Your task to perform on an android device: change timer sound Image 0: 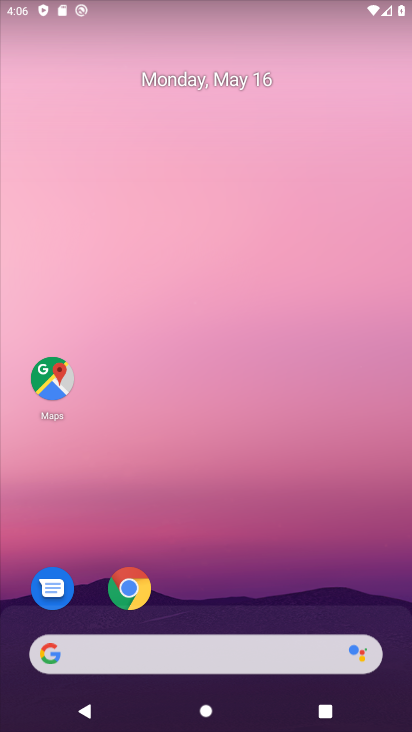
Step 0: drag from (227, 626) to (373, 73)
Your task to perform on an android device: change timer sound Image 1: 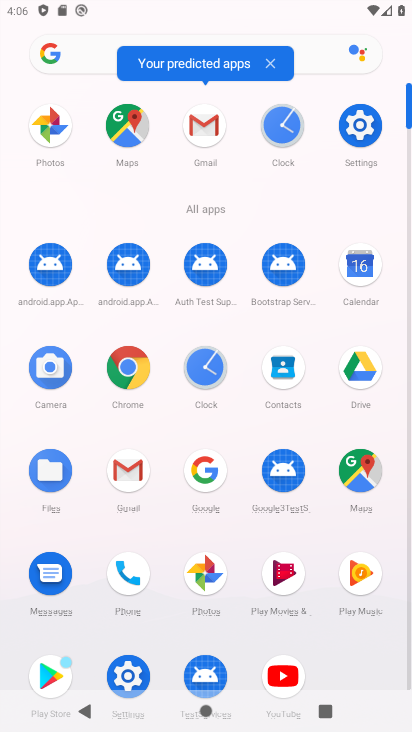
Step 1: click (213, 362)
Your task to perform on an android device: change timer sound Image 2: 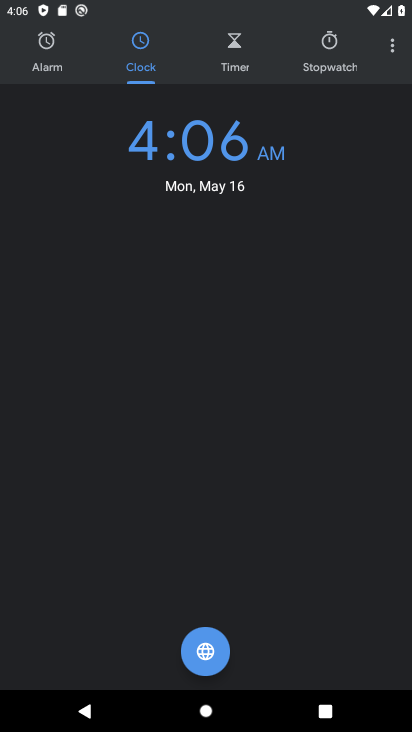
Step 2: click (387, 52)
Your task to perform on an android device: change timer sound Image 3: 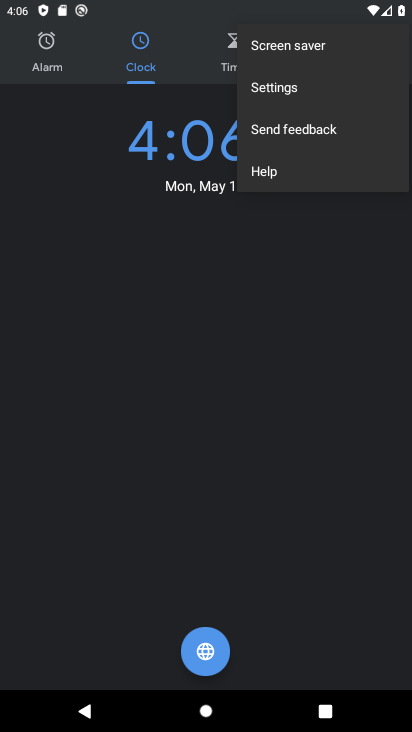
Step 3: click (319, 94)
Your task to perform on an android device: change timer sound Image 4: 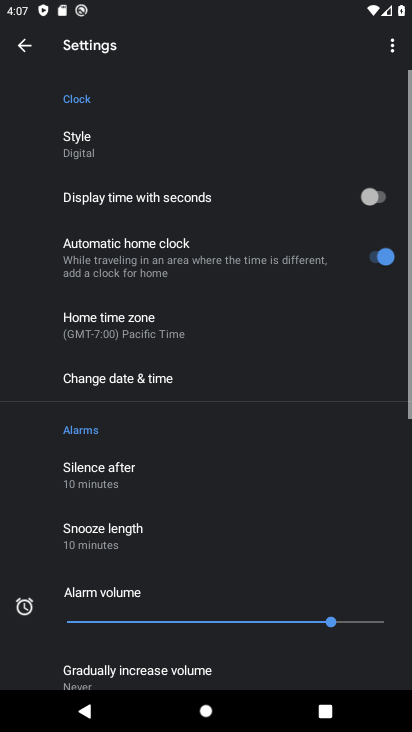
Step 4: drag from (169, 548) to (306, 141)
Your task to perform on an android device: change timer sound Image 5: 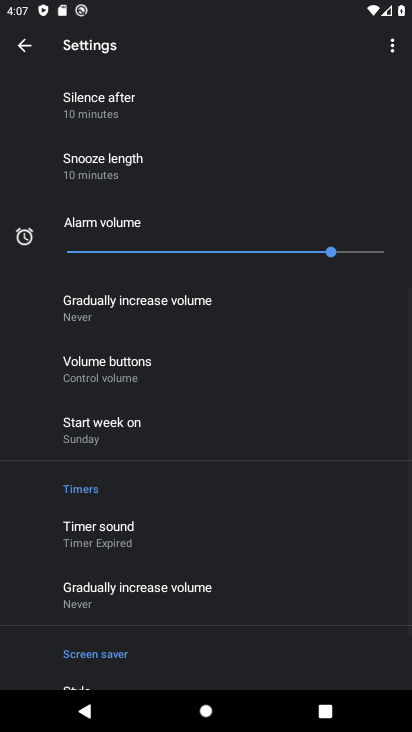
Step 5: click (167, 535)
Your task to perform on an android device: change timer sound Image 6: 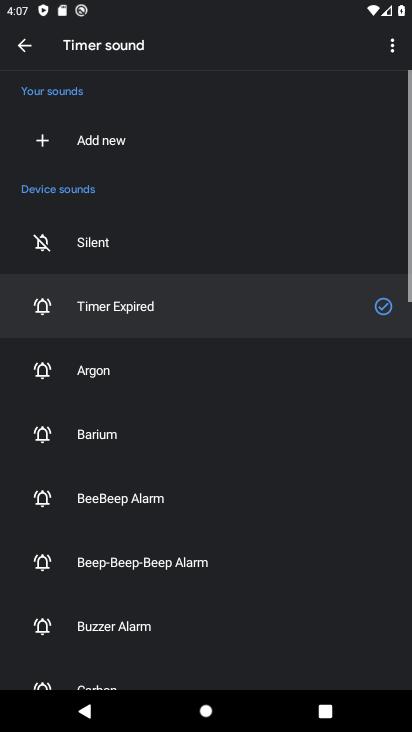
Step 6: drag from (214, 619) to (342, 333)
Your task to perform on an android device: change timer sound Image 7: 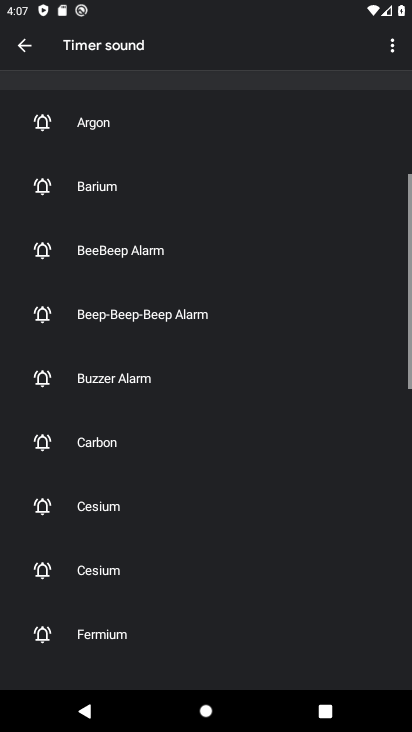
Step 7: click (177, 587)
Your task to perform on an android device: change timer sound Image 8: 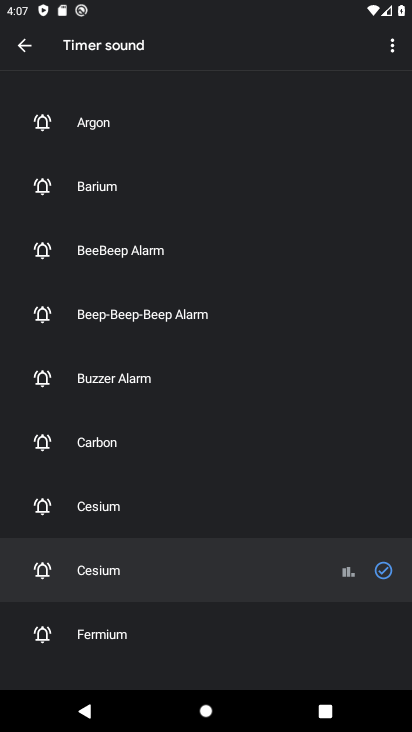
Step 8: task complete